Your task to perform on an android device: toggle wifi Image 0: 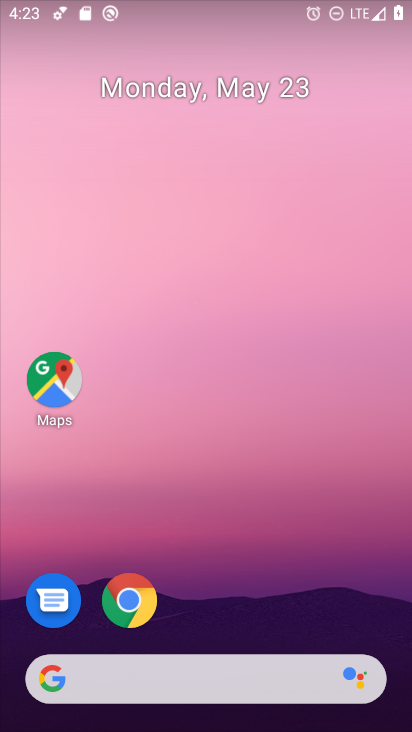
Step 0: drag from (258, 646) to (236, 10)
Your task to perform on an android device: toggle wifi Image 1: 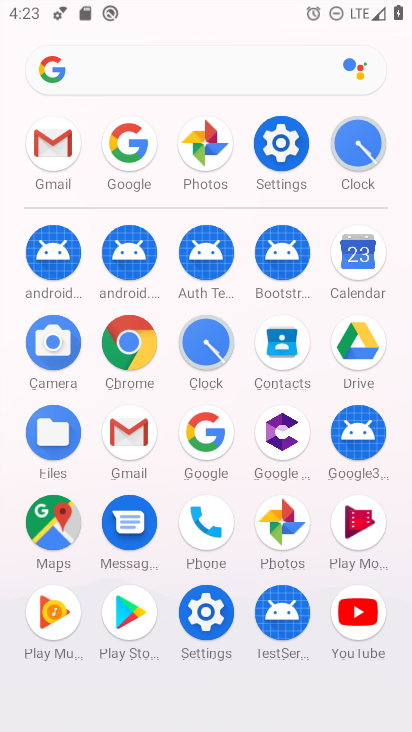
Step 1: click (287, 145)
Your task to perform on an android device: toggle wifi Image 2: 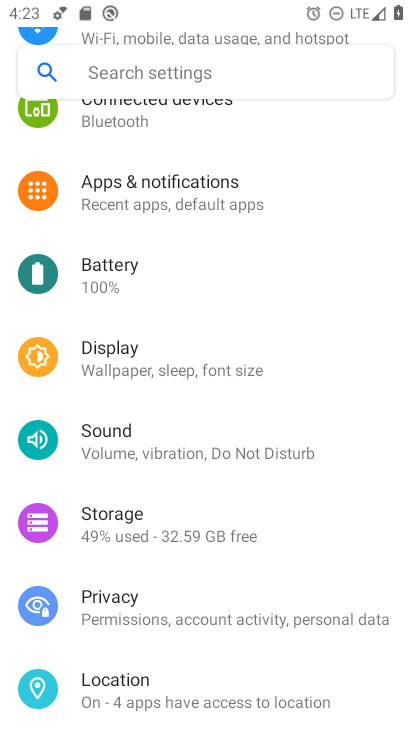
Step 2: drag from (340, 186) to (268, 715)
Your task to perform on an android device: toggle wifi Image 3: 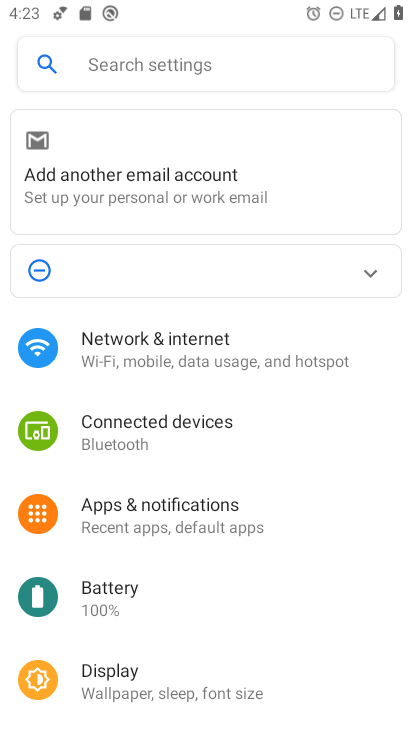
Step 3: click (149, 371)
Your task to perform on an android device: toggle wifi Image 4: 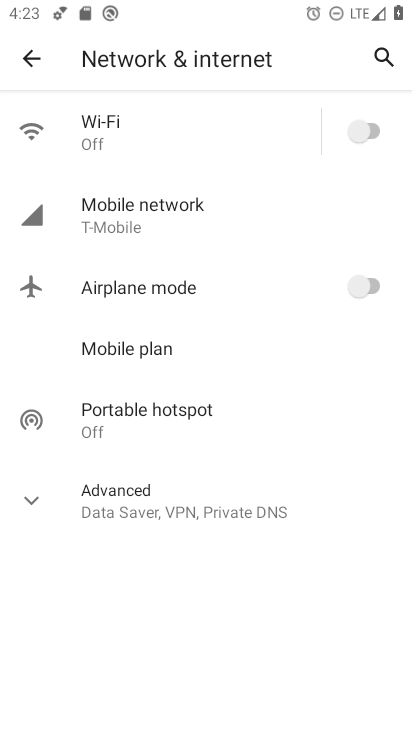
Step 4: click (369, 136)
Your task to perform on an android device: toggle wifi Image 5: 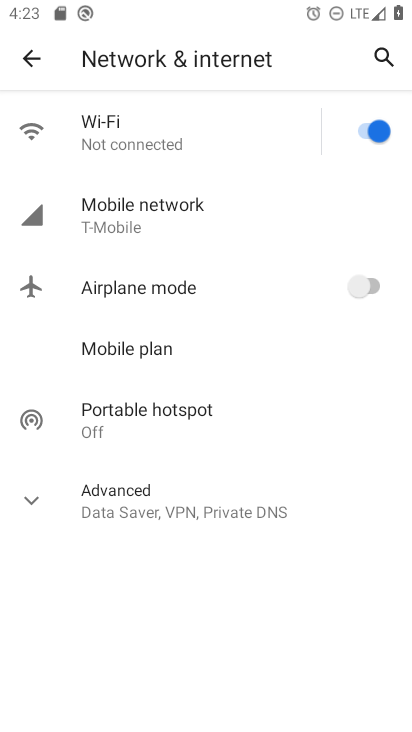
Step 5: task complete